Your task to perform on an android device: choose inbox layout in the gmail app Image 0: 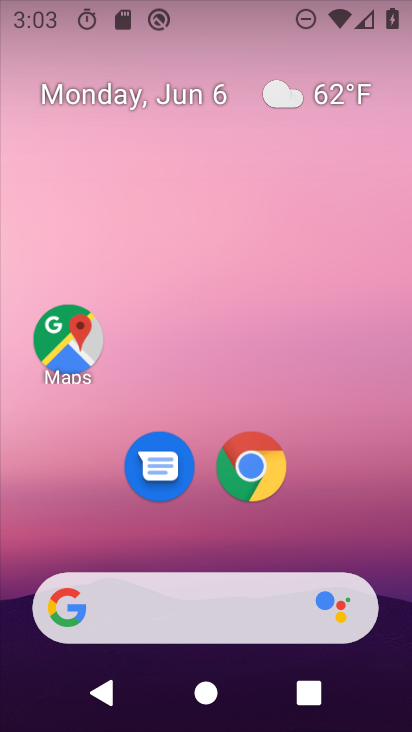
Step 0: drag from (171, 558) to (15, 227)
Your task to perform on an android device: choose inbox layout in the gmail app Image 1: 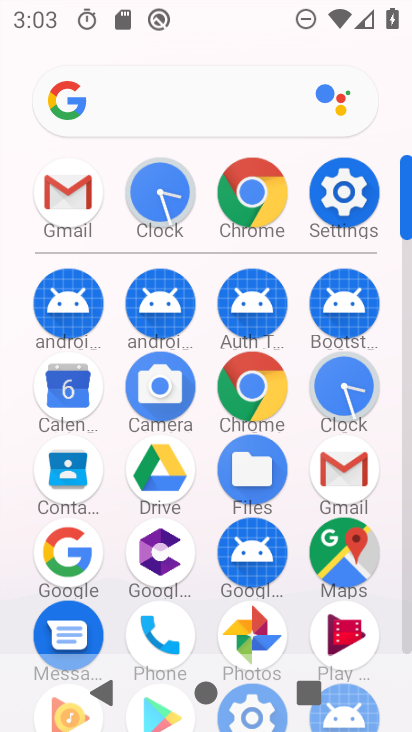
Step 1: click (65, 198)
Your task to perform on an android device: choose inbox layout in the gmail app Image 2: 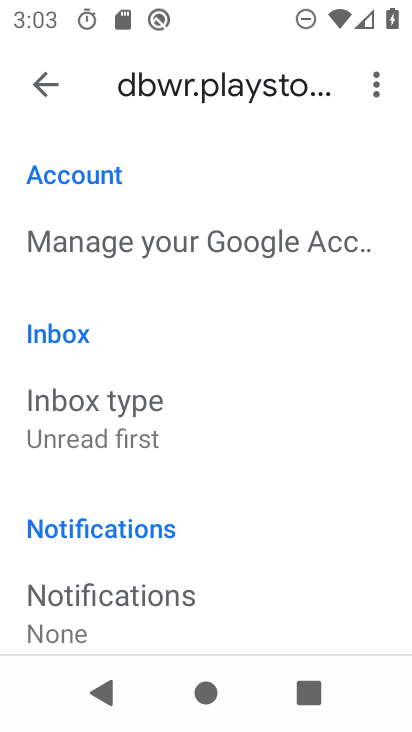
Step 2: drag from (176, 616) to (159, 360)
Your task to perform on an android device: choose inbox layout in the gmail app Image 3: 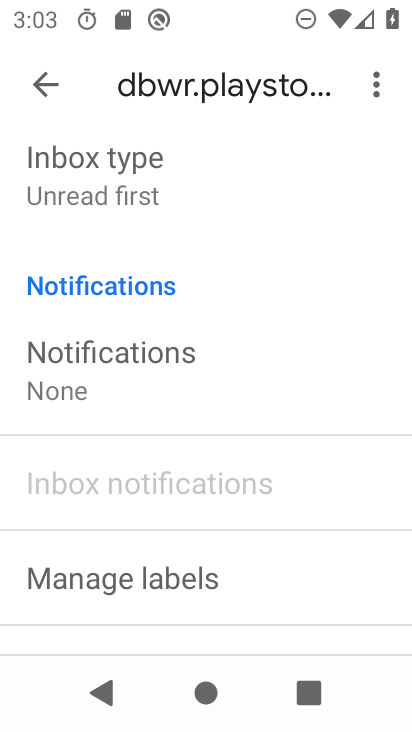
Step 3: drag from (167, 447) to (227, 662)
Your task to perform on an android device: choose inbox layout in the gmail app Image 4: 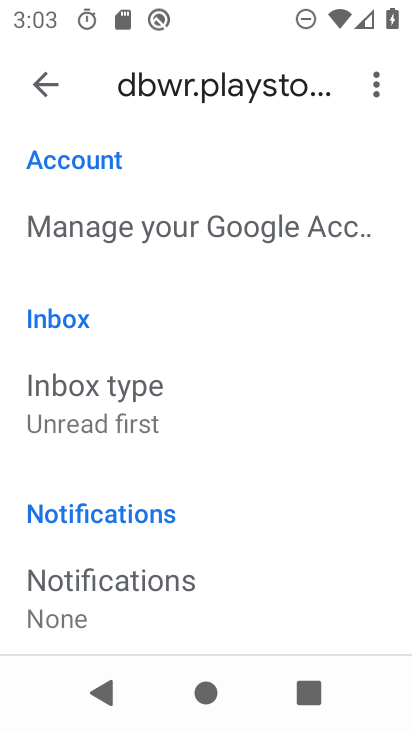
Step 4: click (134, 414)
Your task to perform on an android device: choose inbox layout in the gmail app Image 5: 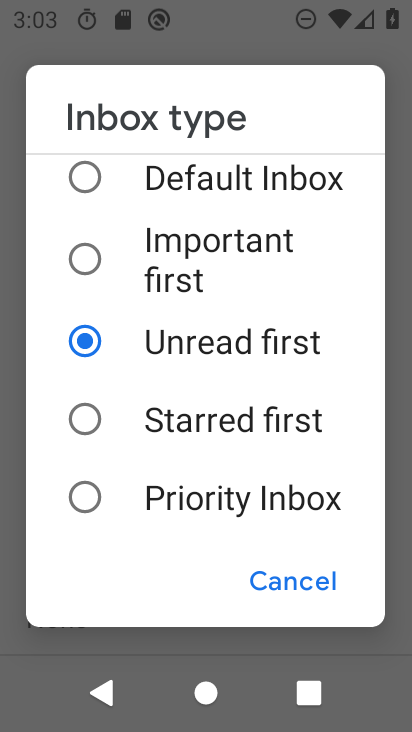
Step 5: click (77, 269)
Your task to perform on an android device: choose inbox layout in the gmail app Image 6: 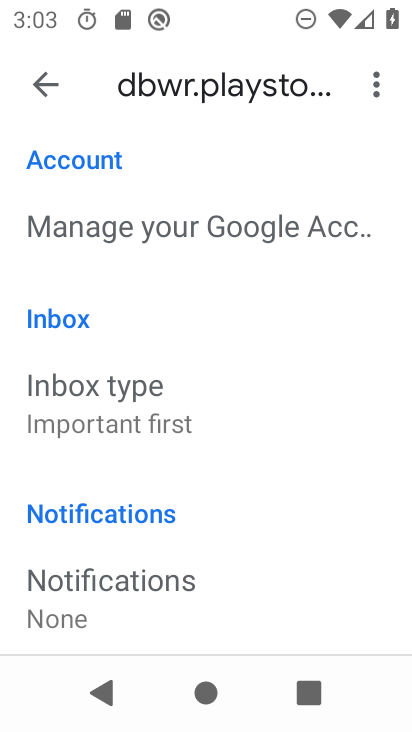
Step 6: task complete